Your task to perform on an android device: open sync settings in chrome Image 0: 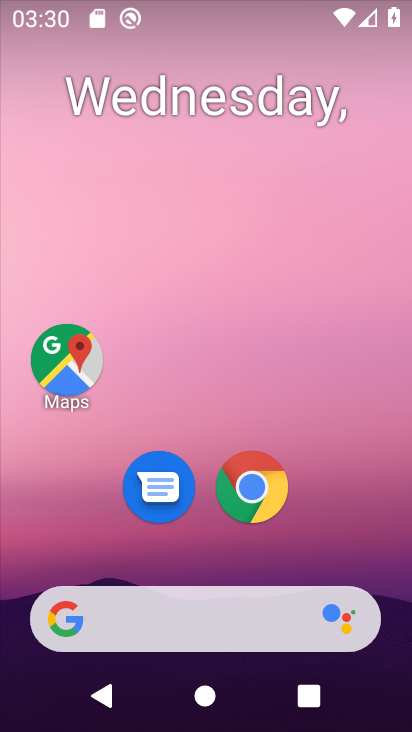
Step 0: click (255, 488)
Your task to perform on an android device: open sync settings in chrome Image 1: 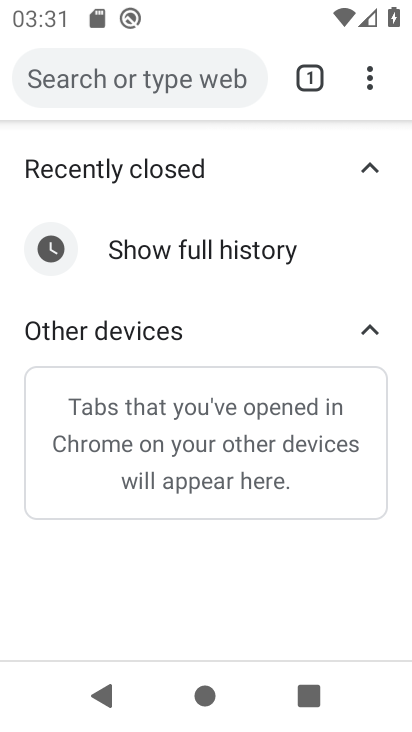
Step 1: click (368, 78)
Your task to perform on an android device: open sync settings in chrome Image 2: 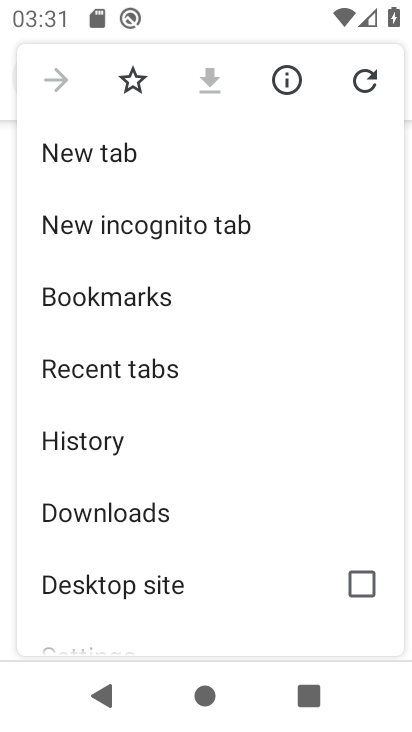
Step 2: drag from (189, 483) to (229, 357)
Your task to perform on an android device: open sync settings in chrome Image 3: 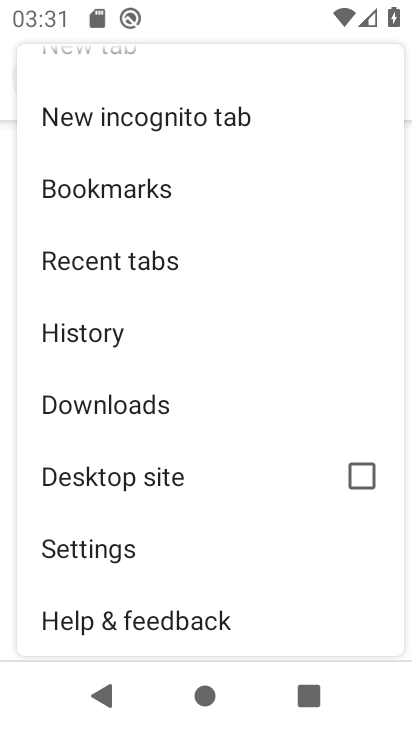
Step 3: click (116, 544)
Your task to perform on an android device: open sync settings in chrome Image 4: 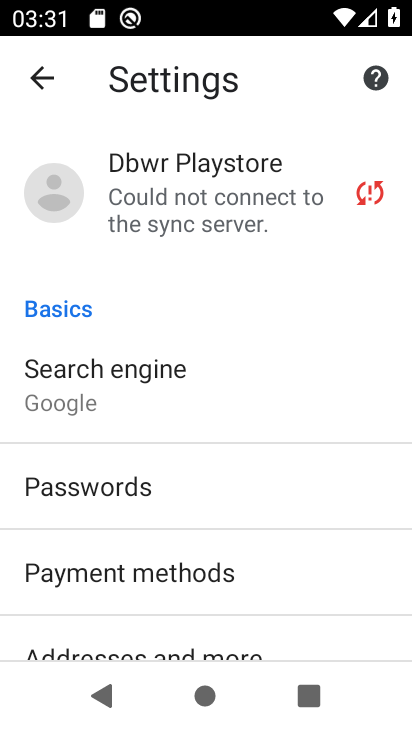
Step 4: drag from (172, 490) to (200, 395)
Your task to perform on an android device: open sync settings in chrome Image 5: 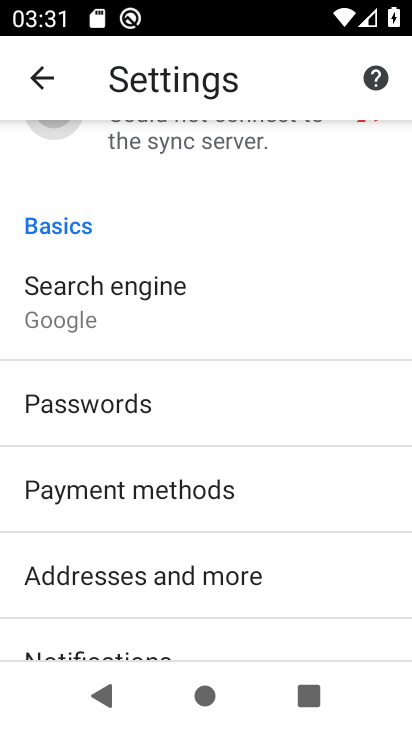
Step 5: drag from (168, 527) to (216, 450)
Your task to perform on an android device: open sync settings in chrome Image 6: 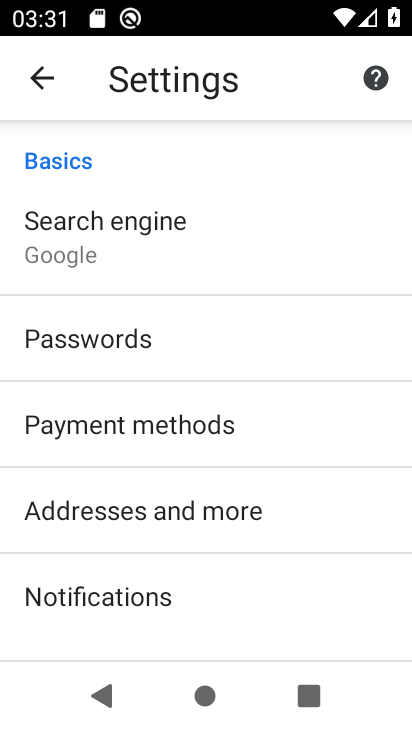
Step 6: drag from (165, 551) to (249, 451)
Your task to perform on an android device: open sync settings in chrome Image 7: 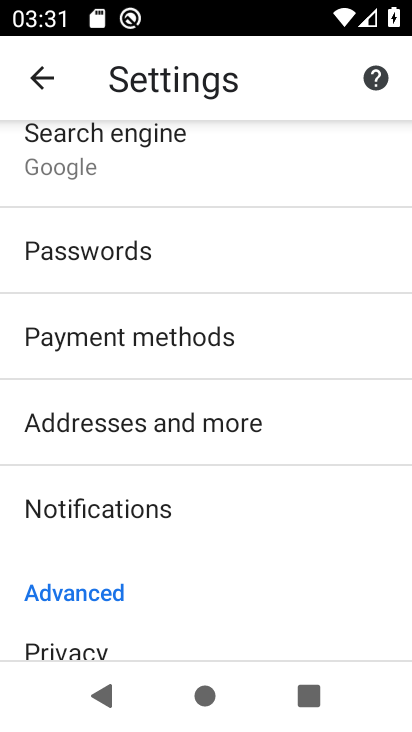
Step 7: drag from (170, 539) to (203, 442)
Your task to perform on an android device: open sync settings in chrome Image 8: 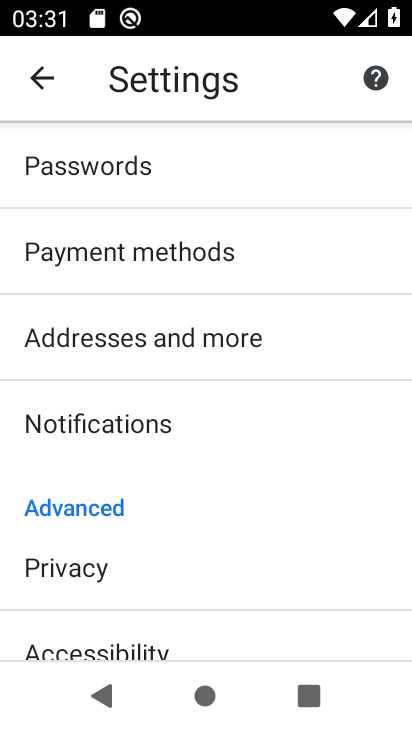
Step 8: drag from (136, 543) to (173, 464)
Your task to perform on an android device: open sync settings in chrome Image 9: 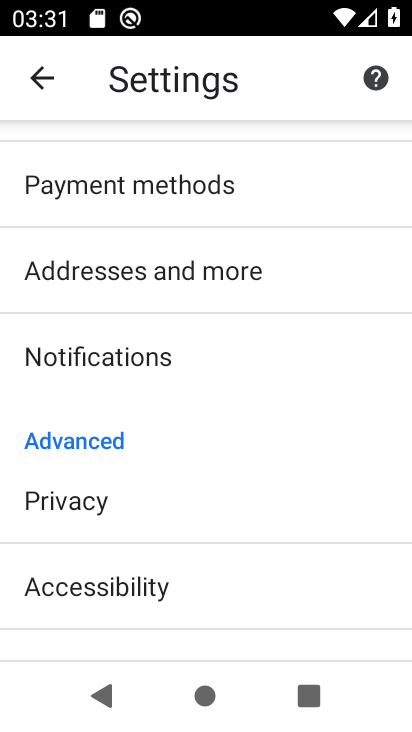
Step 9: drag from (144, 546) to (170, 471)
Your task to perform on an android device: open sync settings in chrome Image 10: 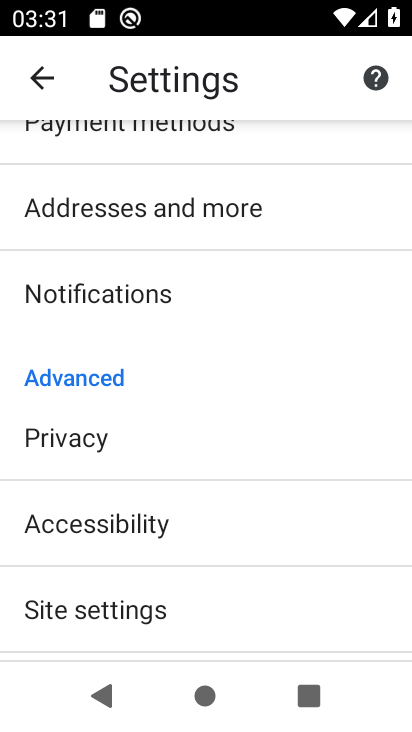
Step 10: drag from (126, 570) to (192, 466)
Your task to perform on an android device: open sync settings in chrome Image 11: 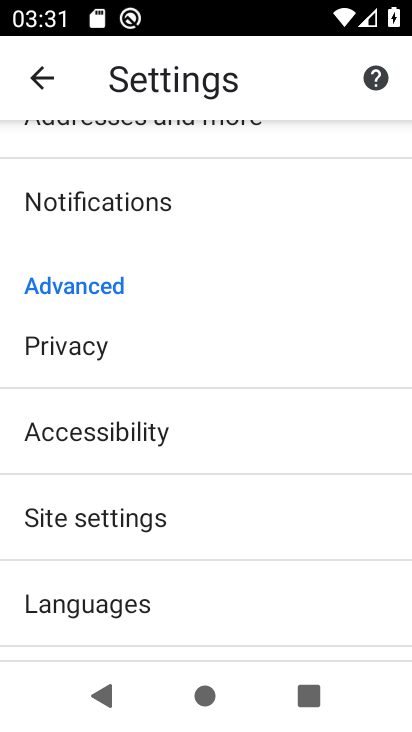
Step 11: click (136, 523)
Your task to perform on an android device: open sync settings in chrome Image 12: 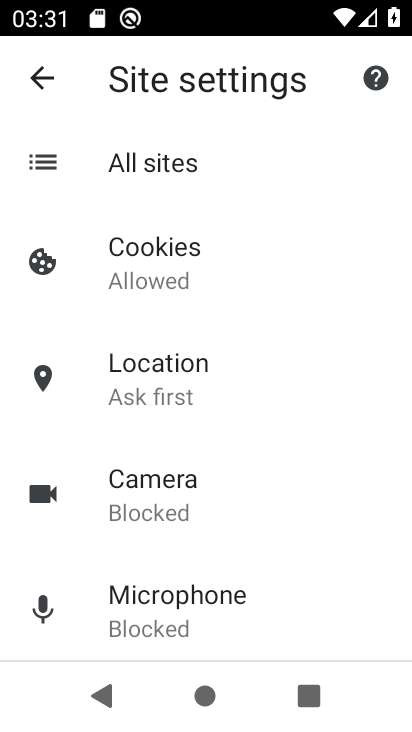
Step 12: drag from (185, 558) to (216, 480)
Your task to perform on an android device: open sync settings in chrome Image 13: 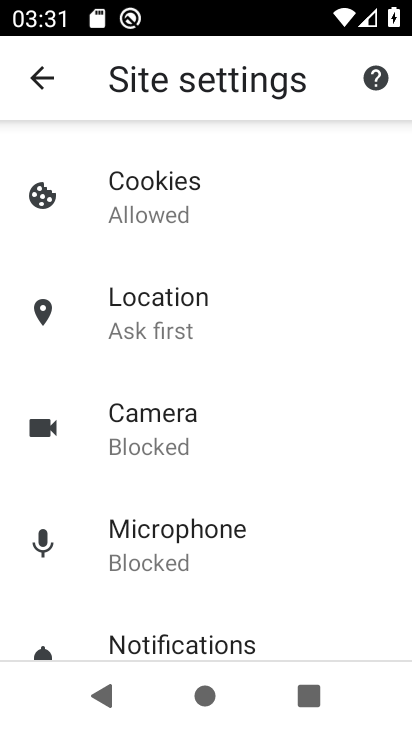
Step 13: drag from (183, 588) to (229, 514)
Your task to perform on an android device: open sync settings in chrome Image 14: 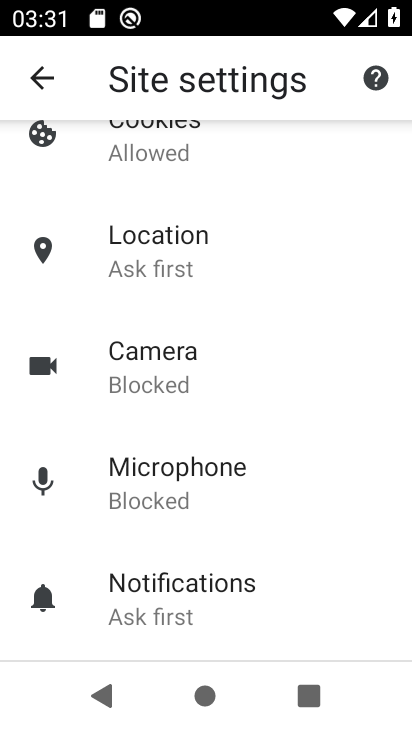
Step 14: drag from (223, 535) to (284, 454)
Your task to perform on an android device: open sync settings in chrome Image 15: 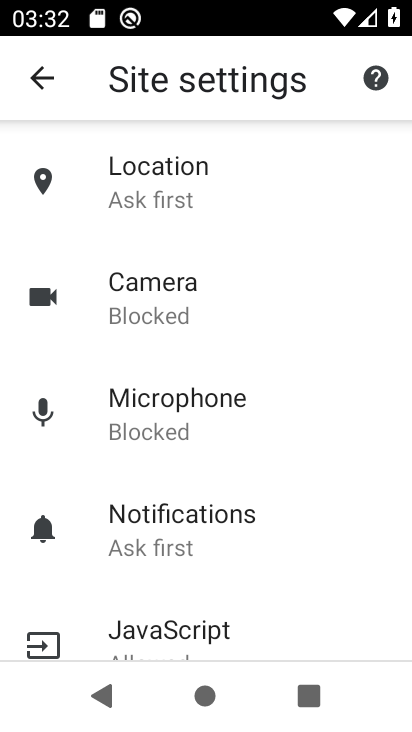
Step 15: drag from (204, 563) to (264, 476)
Your task to perform on an android device: open sync settings in chrome Image 16: 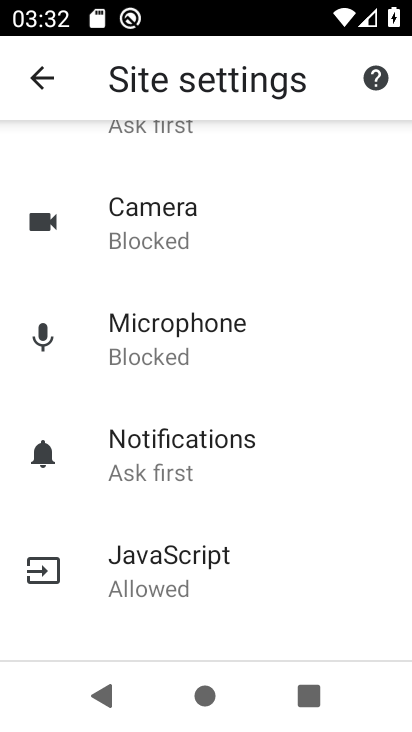
Step 16: drag from (173, 517) to (269, 404)
Your task to perform on an android device: open sync settings in chrome Image 17: 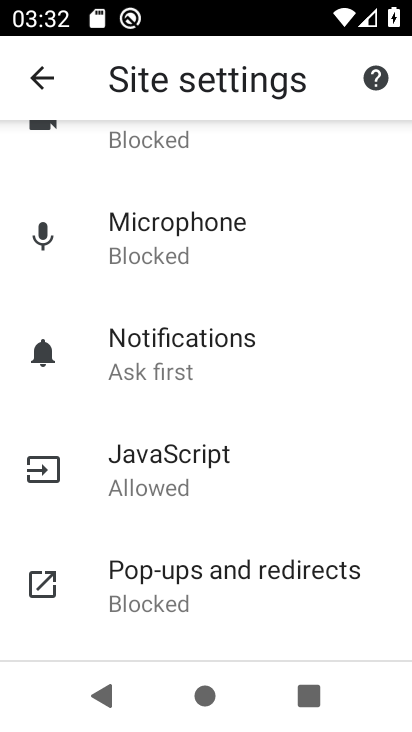
Step 17: drag from (174, 528) to (230, 416)
Your task to perform on an android device: open sync settings in chrome Image 18: 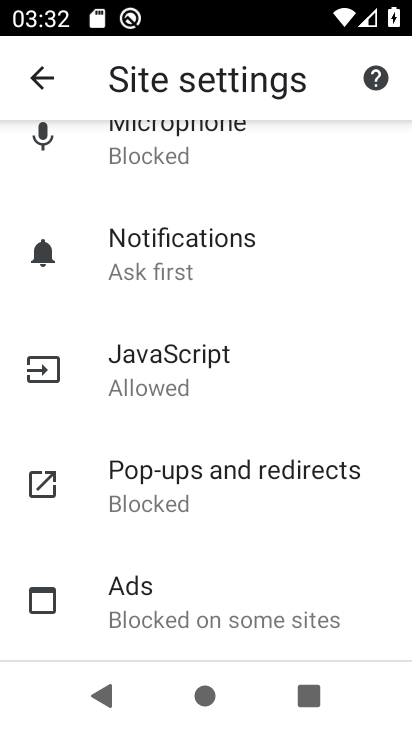
Step 18: drag from (170, 543) to (249, 428)
Your task to perform on an android device: open sync settings in chrome Image 19: 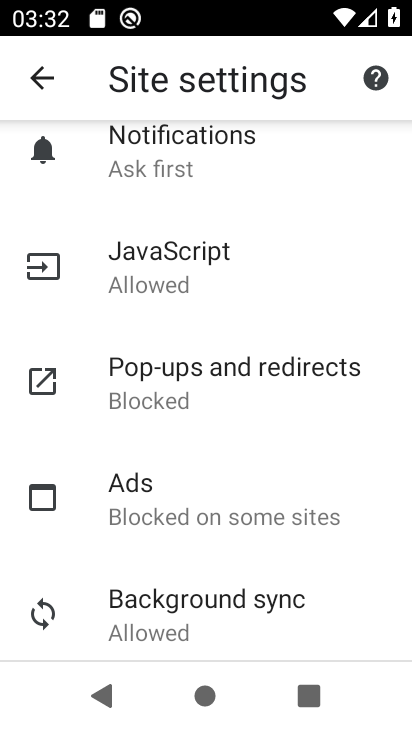
Step 19: drag from (181, 538) to (292, 418)
Your task to perform on an android device: open sync settings in chrome Image 20: 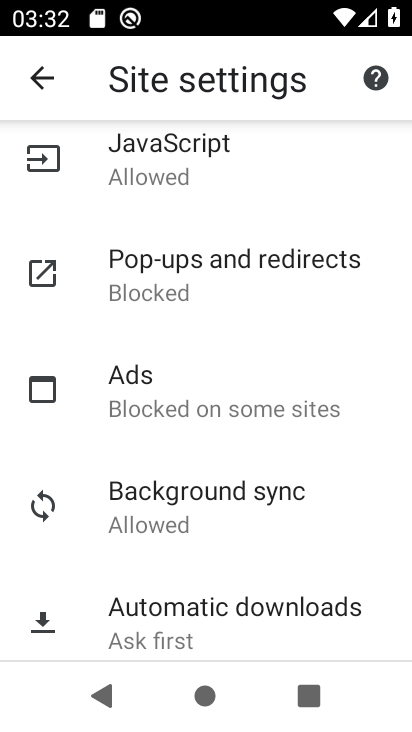
Step 20: click (229, 504)
Your task to perform on an android device: open sync settings in chrome Image 21: 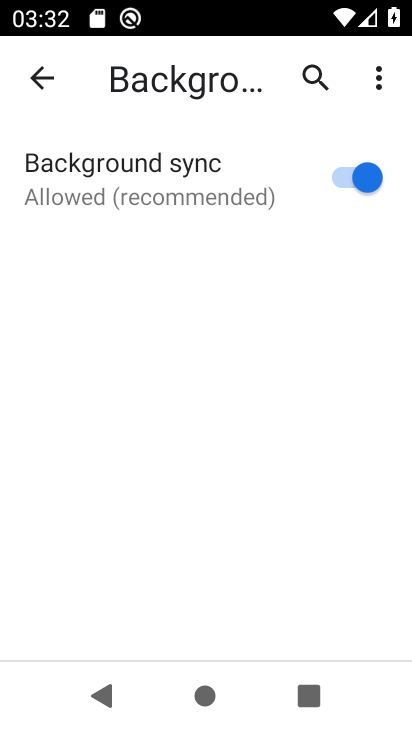
Step 21: task complete